Your task to perform on an android device: set the stopwatch Image 0: 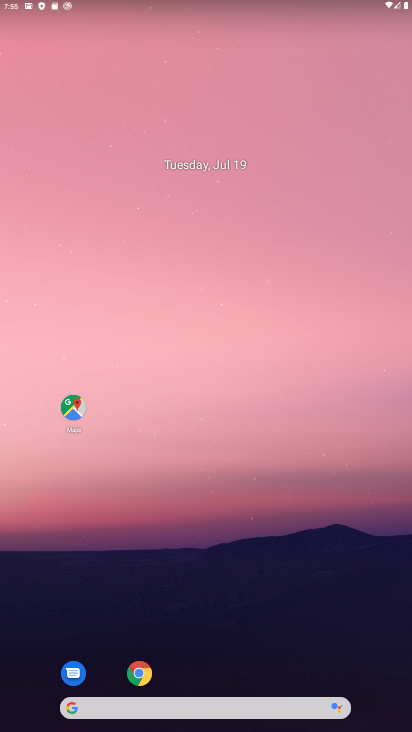
Step 0: drag from (224, 674) to (318, 87)
Your task to perform on an android device: set the stopwatch Image 1: 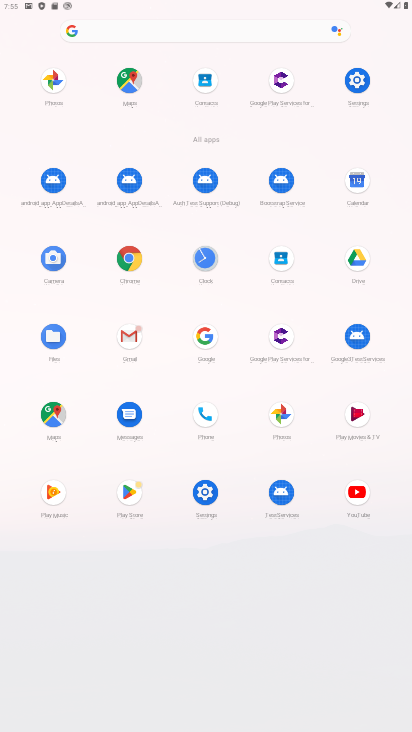
Step 1: click (202, 263)
Your task to perform on an android device: set the stopwatch Image 2: 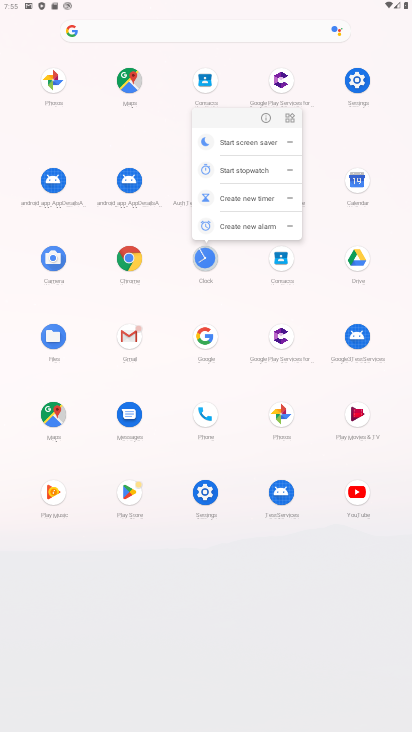
Step 2: click (203, 256)
Your task to perform on an android device: set the stopwatch Image 3: 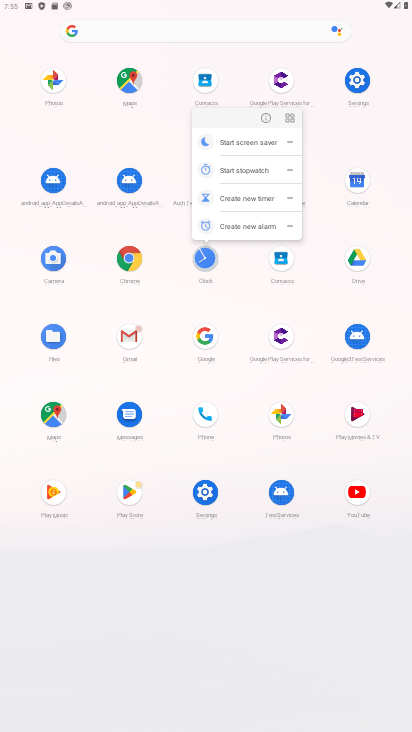
Step 3: click (205, 255)
Your task to perform on an android device: set the stopwatch Image 4: 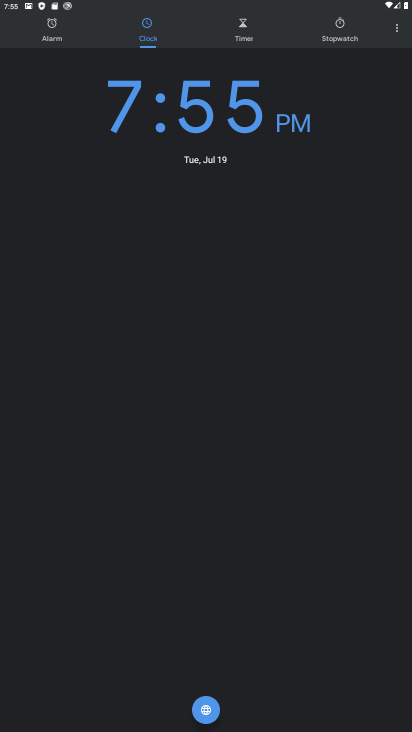
Step 4: click (339, 36)
Your task to perform on an android device: set the stopwatch Image 5: 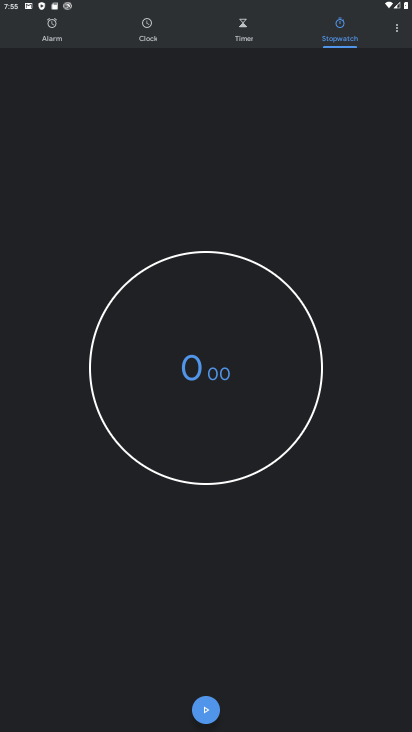
Step 5: click (213, 711)
Your task to perform on an android device: set the stopwatch Image 6: 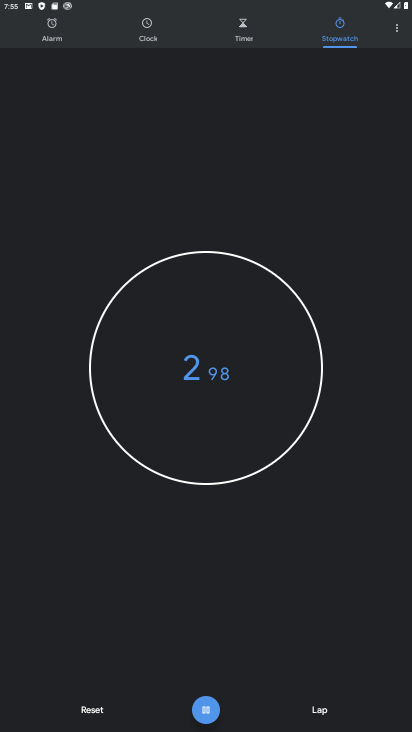
Step 6: task complete